Your task to perform on an android device: Go to Amazon Image 0: 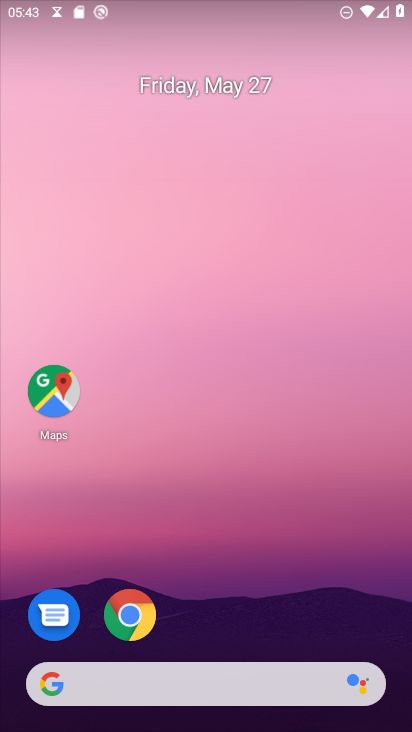
Step 0: click (131, 617)
Your task to perform on an android device: Go to Amazon Image 1: 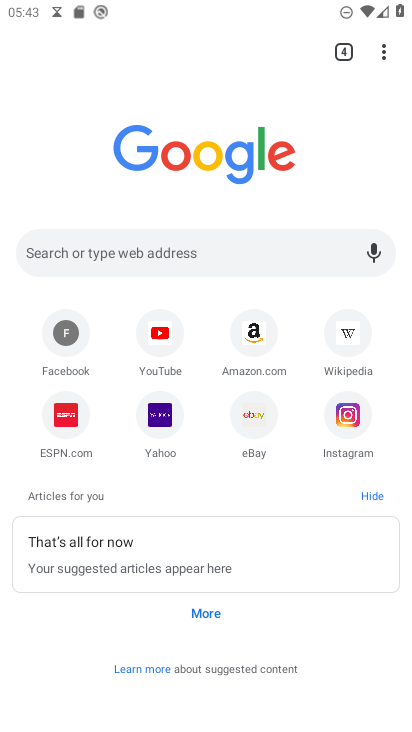
Step 1: click (254, 335)
Your task to perform on an android device: Go to Amazon Image 2: 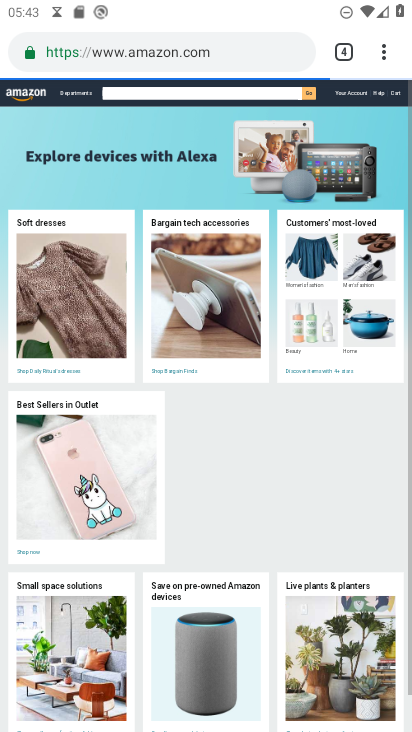
Step 2: task complete